Your task to perform on an android device: How much does the TCL TV cost? Image 0: 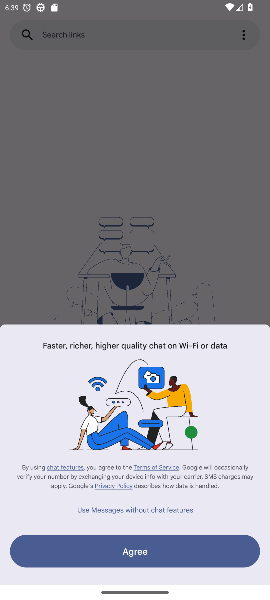
Step 0: press home button
Your task to perform on an android device: How much does the TCL TV cost? Image 1: 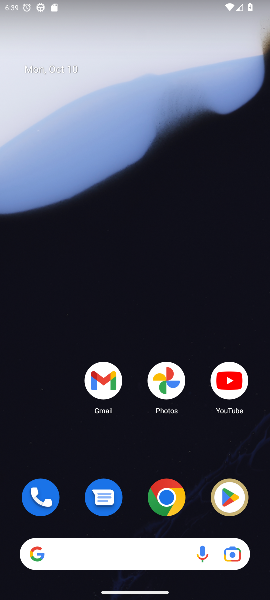
Step 1: drag from (125, 479) to (161, 147)
Your task to perform on an android device: How much does the TCL TV cost? Image 2: 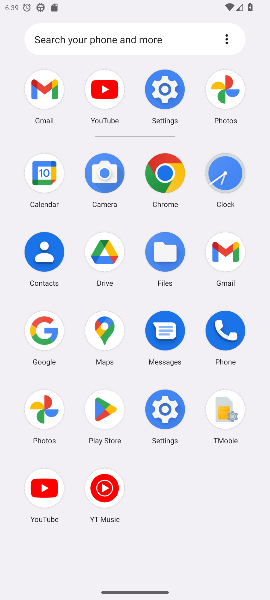
Step 2: click (33, 323)
Your task to perform on an android device: How much does the TCL TV cost? Image 3: 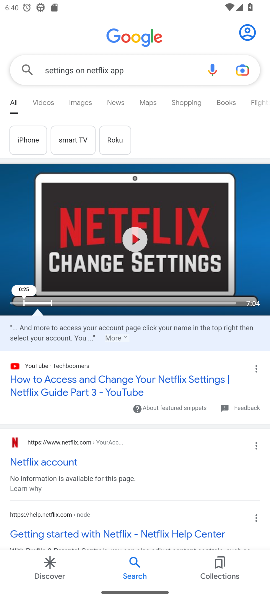
Step 3: click (154, 63)
Your task to perform on an android device: How much does the TCL TV cost? Image 4: 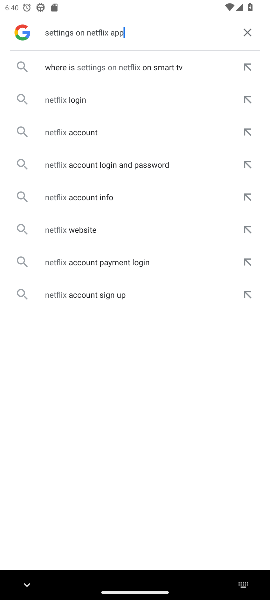
Step 4: click (249, 28)
Your task to perform on an android device: How much does the TCL TV cost? Image 5: 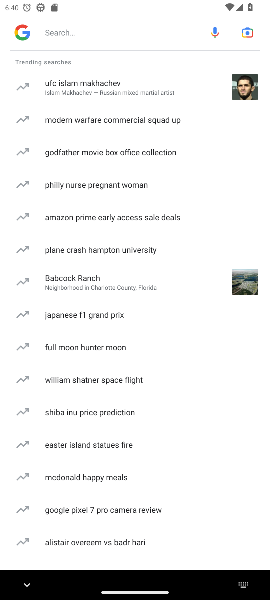
Step 5: click (119, 36)
Your task to perform on an android device: How much does the TCL TV cost? Image 6: 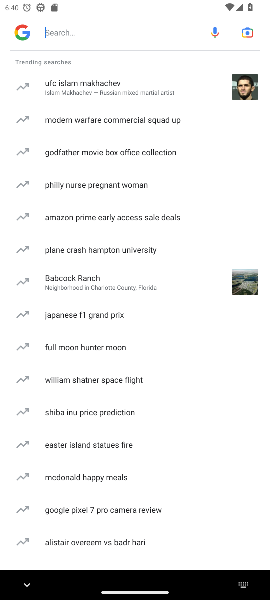
Step 6: type "How much does the TCL TV cost? "
Your task to perform on an android device: How much does the TCL TV cost? Image 7: 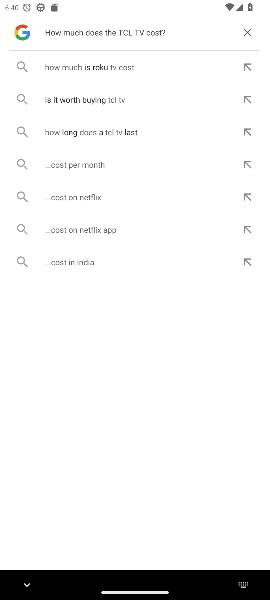
Step 7: click (94, 64)
Your task to perform on an android device: How much does the TCL TV cost? Image 8: 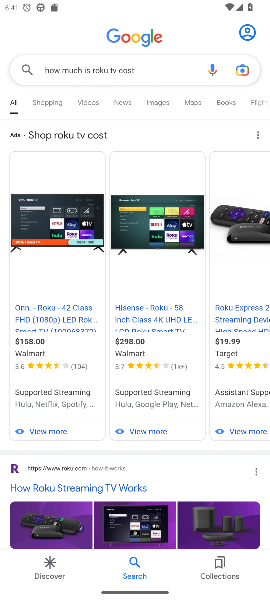
Step 8: drag from (105, 444) to (140, 115)
Your task to perform on an android device: How much does the TCL TV cost? Image 9: 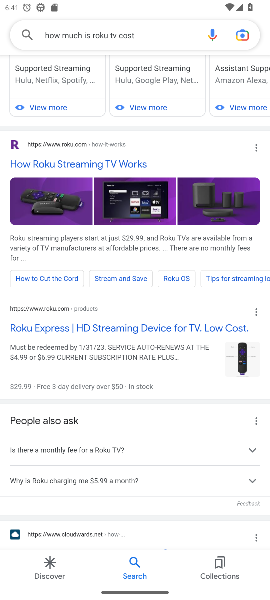
Step 9: drag from (189, 491) to (192, 140)
Your task to perform on an android device: How much does the TCL TV cost? Image 10: 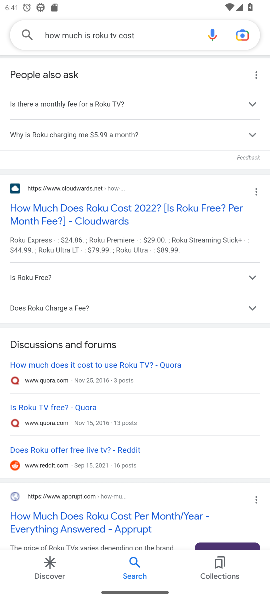
Step 10: click (102, 210)
Your task to perform on an android device: How much does the TCL TV cost? Image 11: 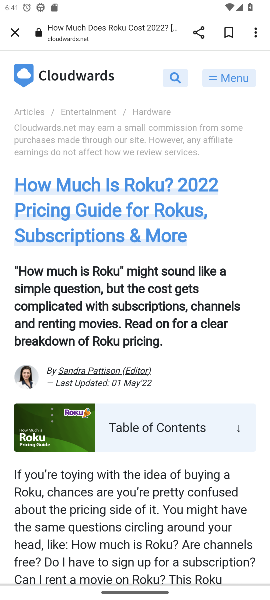
Step 11: press back button
Your task to perform on an android device: How much does the TCL TV cost? Image 12: 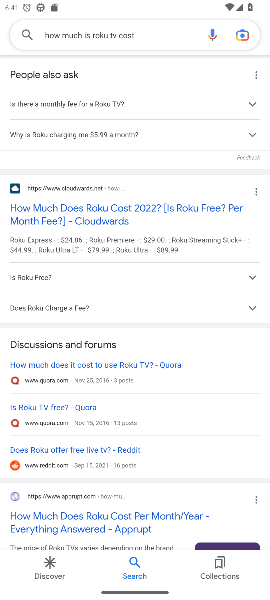
Step 12: drag from (97, 130) to (60, 498)
Your task to perform on an android device: How much does the TCL TV cost? Image 13: 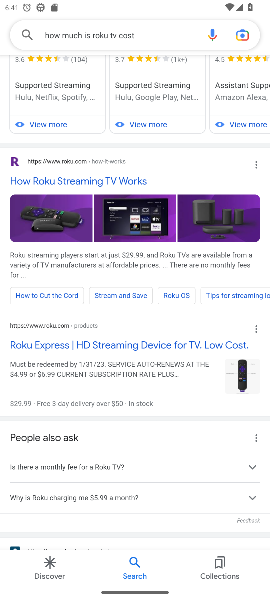
Step 13: drag from (88, 142) to (73, 492)
Your task to perform on an android device: How much does the TCL TV cost? Image 14: 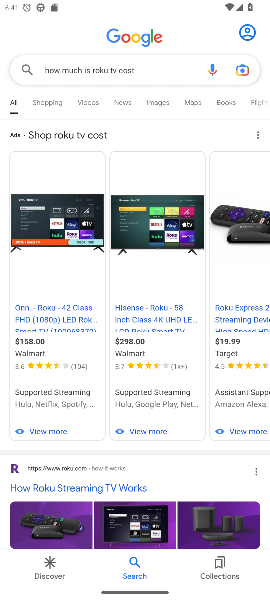
Step 14: drag from (133, 190) to (120, 333)
Your task to perform on an android device: How much does the TCL TV cost? Image 15: 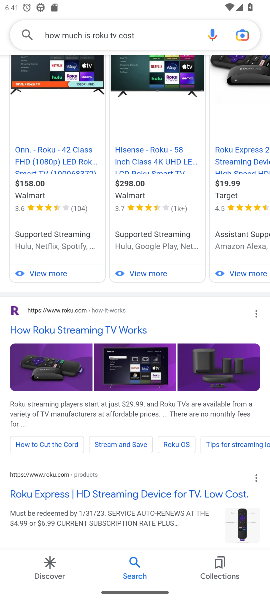
Step 15: click (81, 331)
Your task to perform on an android device: How much does the TCL TV cost? Image 16: 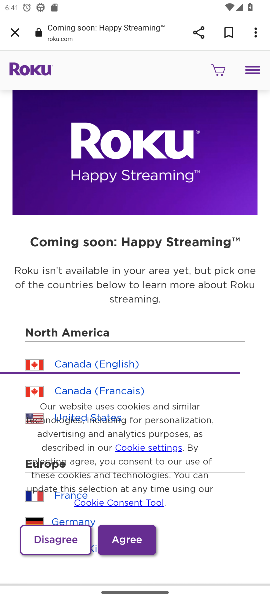
Step 16: task complete